Your task to perform on an android device: turn on bluetooth scan Image 0: 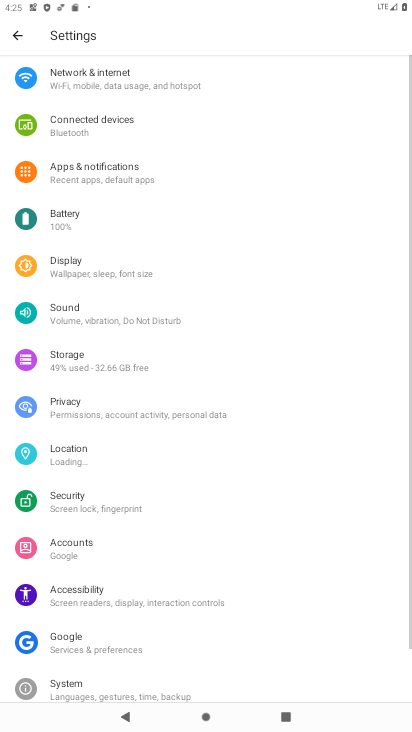
Step 0: press home button
Your task to perform on an android device: turn on bluetooth scan Image 1: 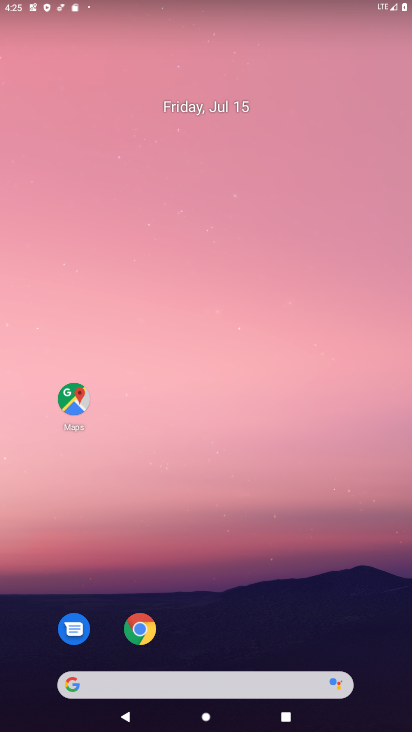
Step 1: drag from (227, 397) to (252, 51)
Your task to perform on an android device: turn on bluetooth scan Image 2: 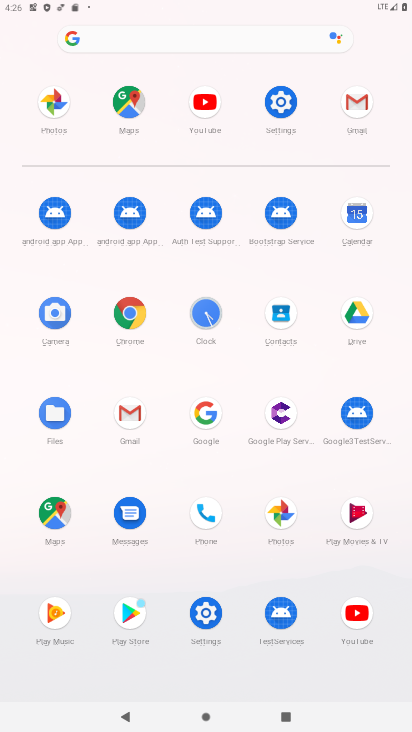
Step 2: click (290, 100)
Your task to perform on an android device: turn on bluetooth scan Image 3: 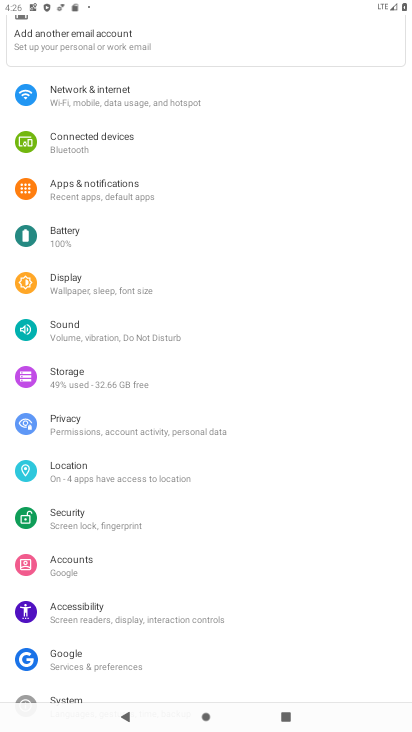
Step 3: click (62, 472)
Your task to perform on an android device: turn on bluetooth scan Image 4: 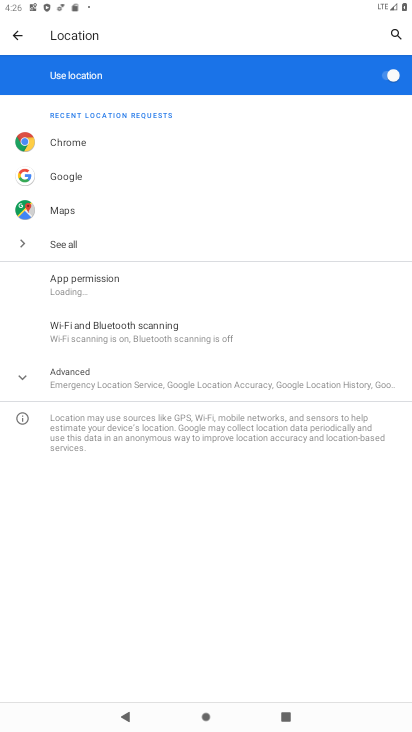
Step 4: click (149, 319)
Your task to perform on an android device: turn on bluetooth scan Image 5: 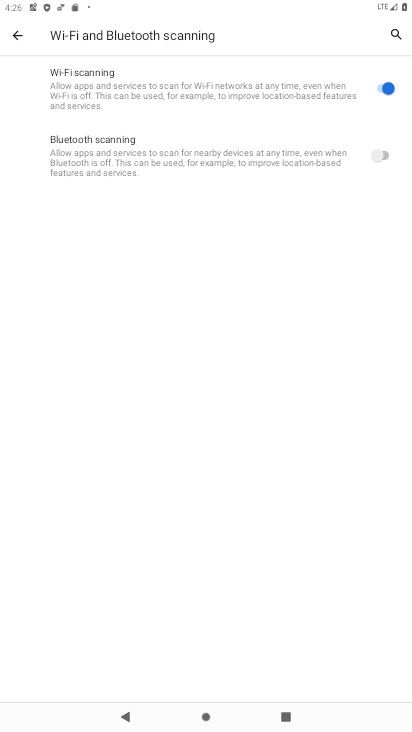
Step 5: task complete